Your task to perform on an android device: delete the emails in spam in the gmail app Image 0: 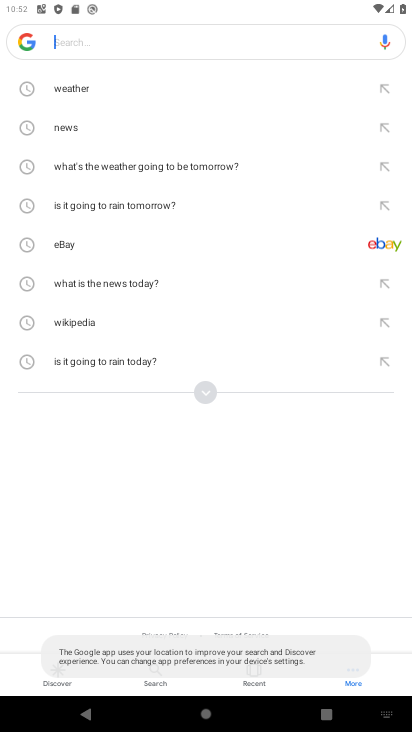
Step 0: press back button
Your task to perform on an android device: delete the emails in spam in the gmail app Image 1: 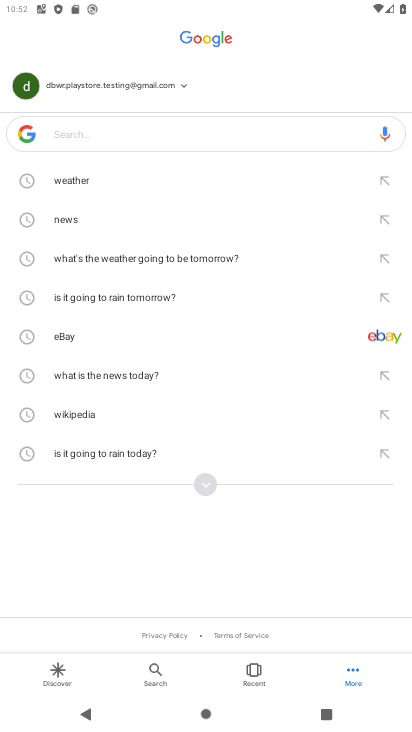
Step 1: press back button
Your task to perform on an android device: delete the emails in spam in the gmail app Image 2: 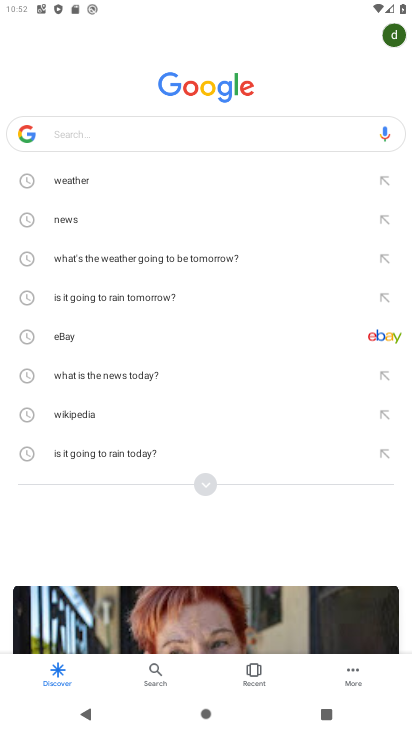
Step 2: press home button
Your task to perform on an android device: delete the emails in spam in the gmail app Image 3: 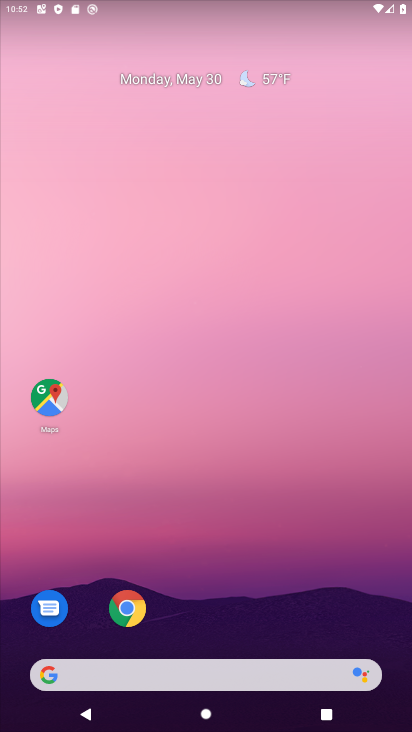
Step 3: drag from (301, 576) to (264, 15)
Your task to perform on an android device: delete the emails in spam in the gmail app Image 4: 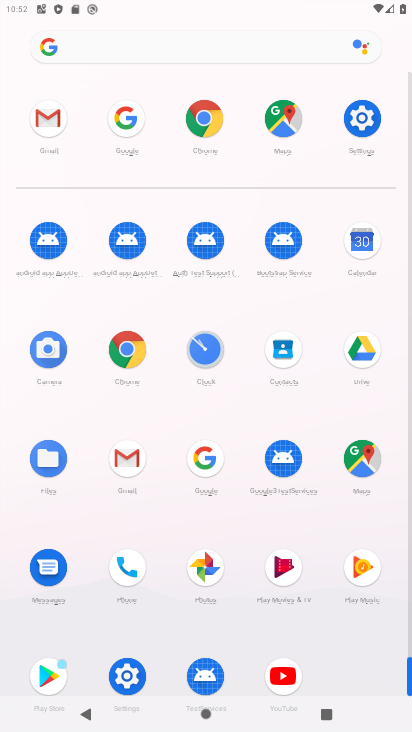
Step 4: click (125, 457)
Your task to perform on an android device: delete the emails in spam in the gmail app Image 5: 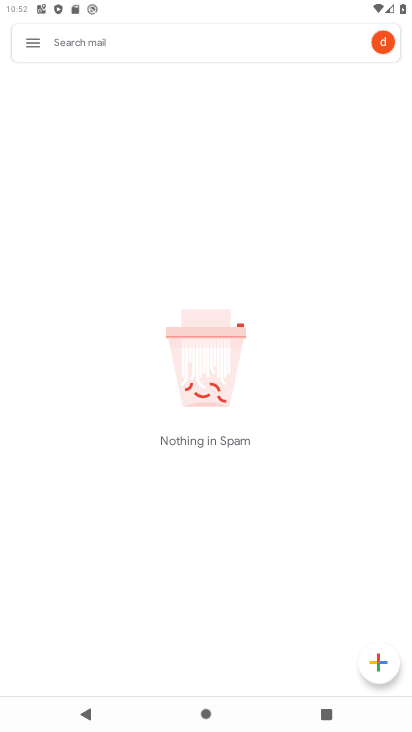
Step 5: click (28, 47)
Your task to perform on an android device: delete the emails in spam in the gmail app Image 6: 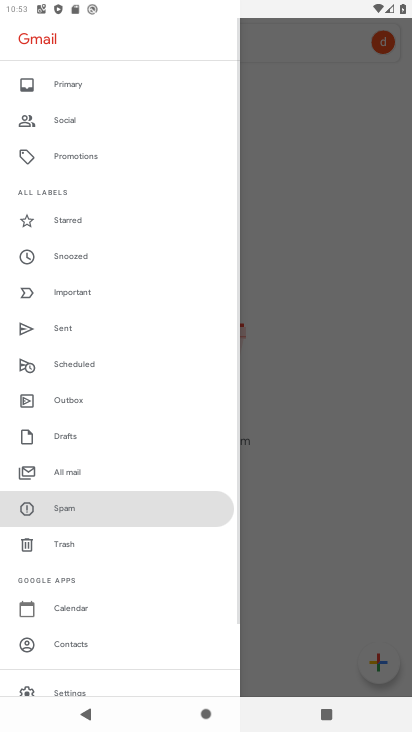
Step 6: drag from (114, 574) to (138, 153)
Your task to perform on an android device: delete the emails in spam in the gmail app Image 7: 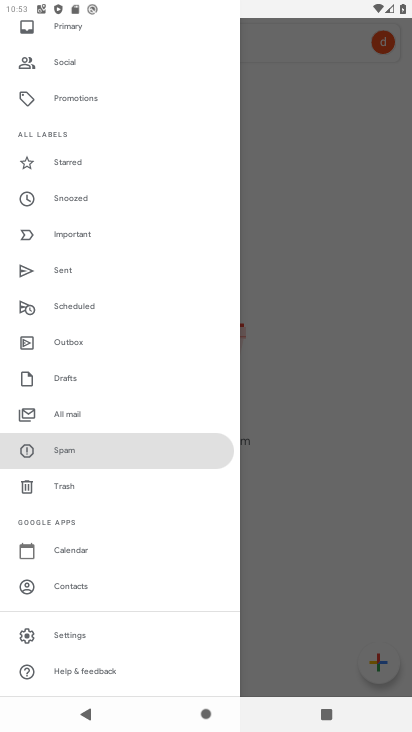
Step 7: click (90, 438)
Your task to perform on an android device: delete the emails in spam in the gmail app Image 8: 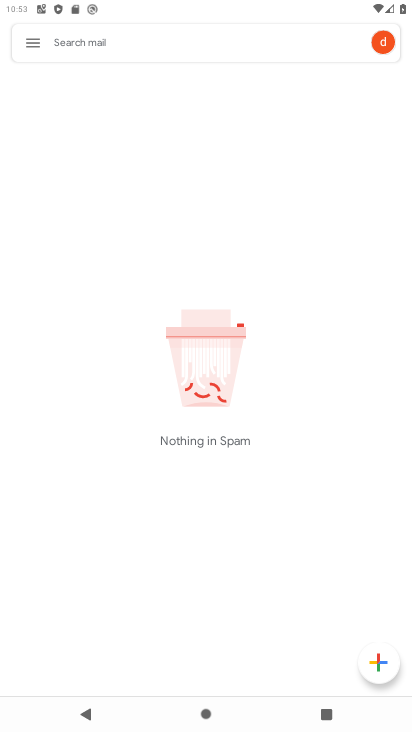
Step 8: task complete